Your task to perform on an android device: check storage Image 0: 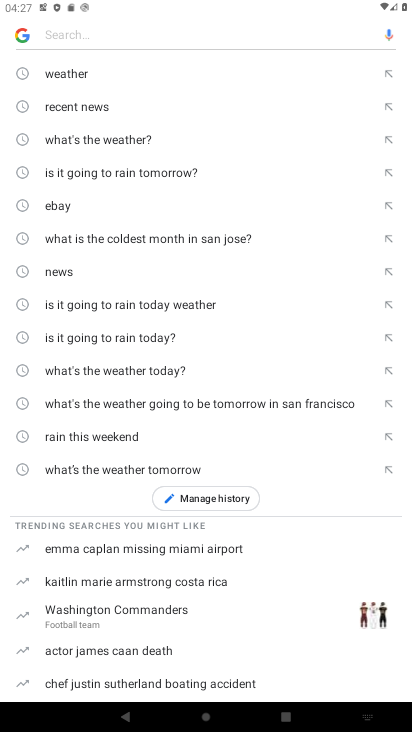
Step 0: press home button
Your task to perform on an android device: check storage Image 1: 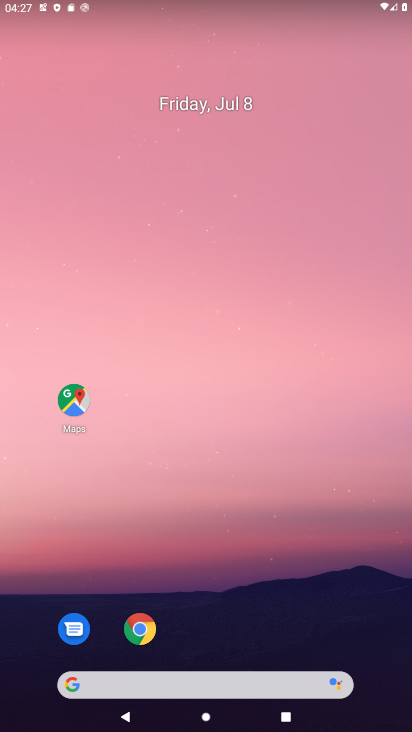
Step 1: drag from (241, 710) to (189, 96)
Your task to perform on an android device: check storage Image 2: 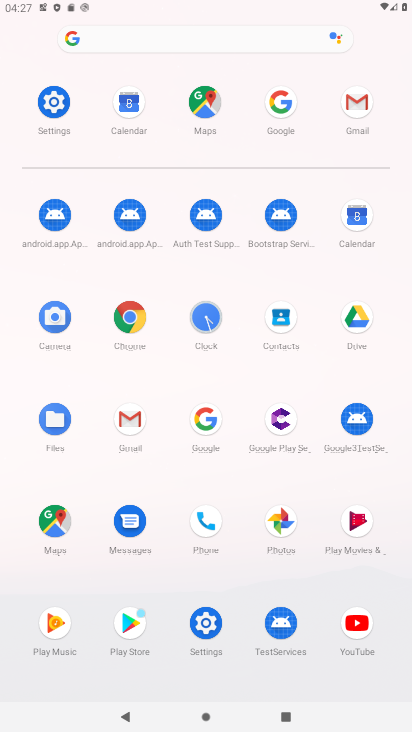
Step 2: click (52, 101)
Your task to perform on an android device: check storage Image 3: 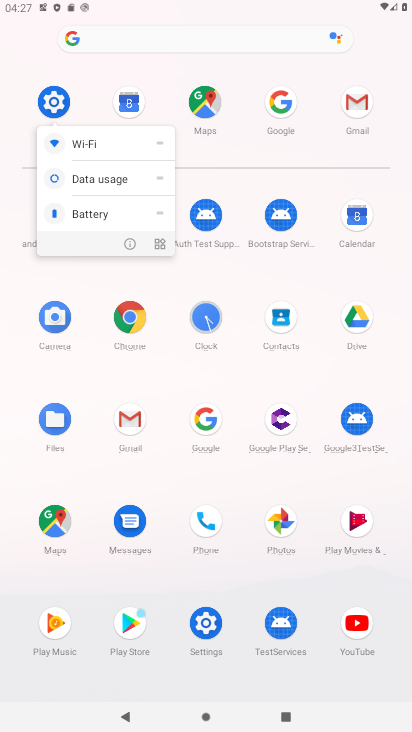
Step 3: click (57, 95)
Your task to perform on an android device: check storage Image 4: 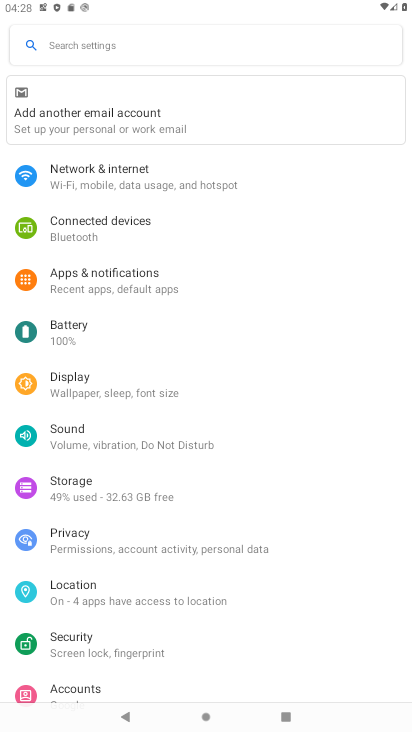
Step 4: click (70, 485)
Your task to perform on an android device: check storage Image 5: 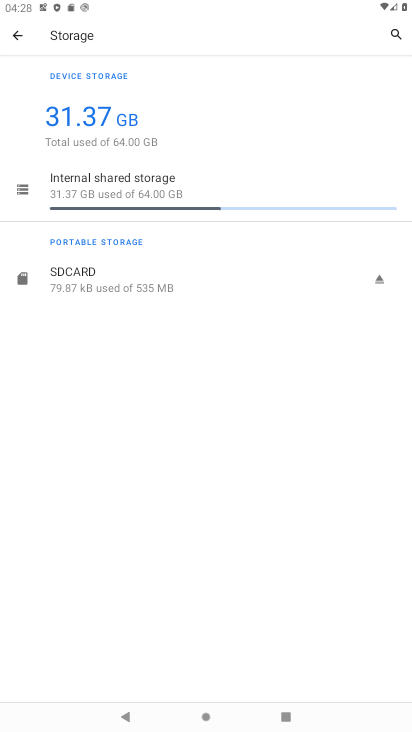
Step 5: task complete